Your task to perform on an android device: Go to network settings Image 0: 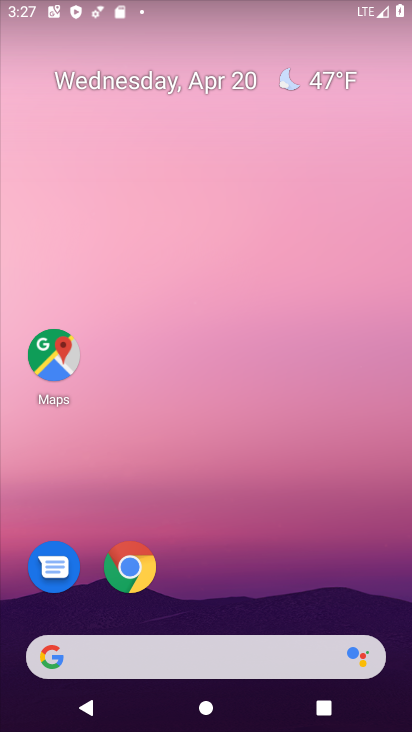
Step 0: drag from (289, 539) to (221, 76)
Your task to perform on an android device: Go to network settings Image 1: 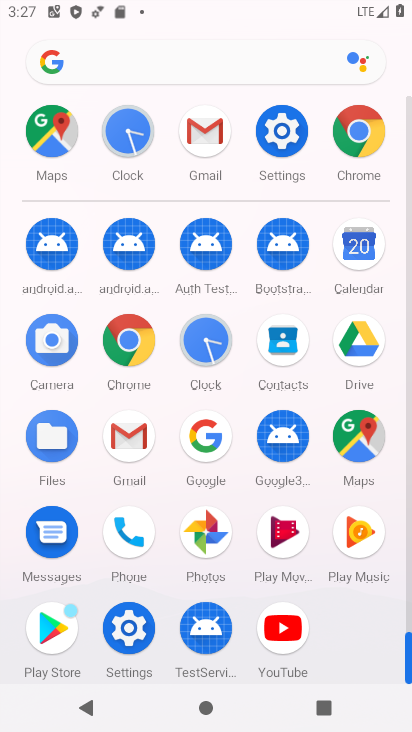
Step 1: click (284, 128)
Your task to perform on an android device: Go to network settings Image 2: 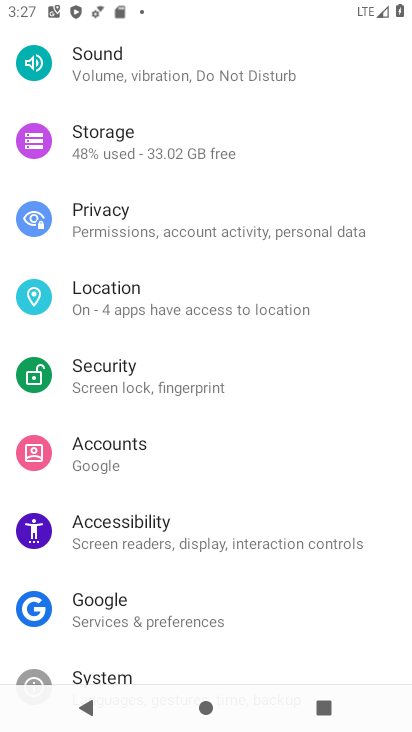
Step 2: drag from (354, 211) to (370, 442)
Your task to perform on an android device: Go to network settings Image 3: 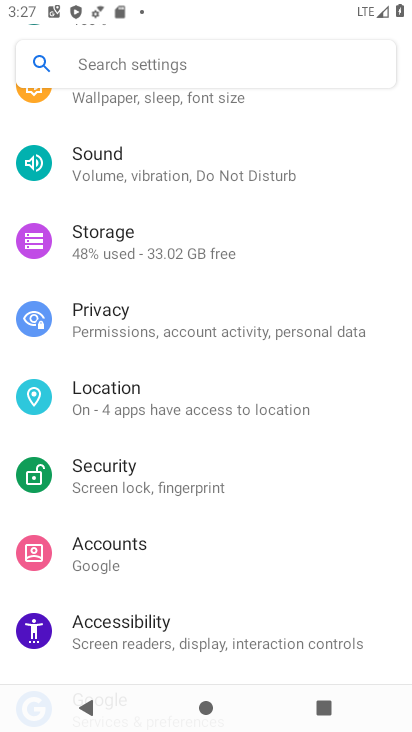
Step 3: drag from (326, 226) to (342, 523)
Your task to perform on an android device: Go to network settings Image 4: 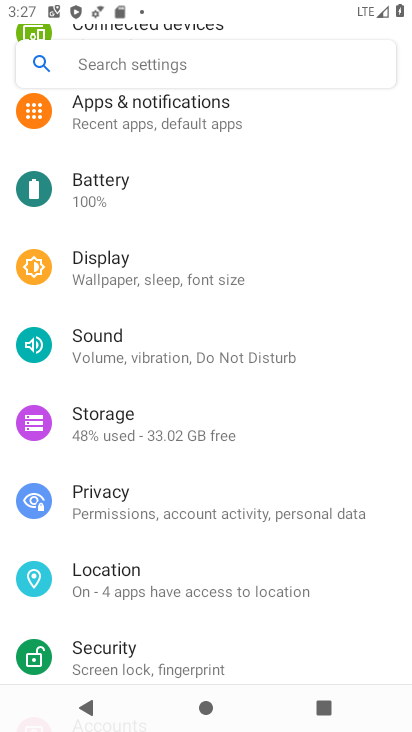
Step 4: drag from (263, 205) to (329, 510)
Your task to perform on an android device: Go to network settings Image 5: 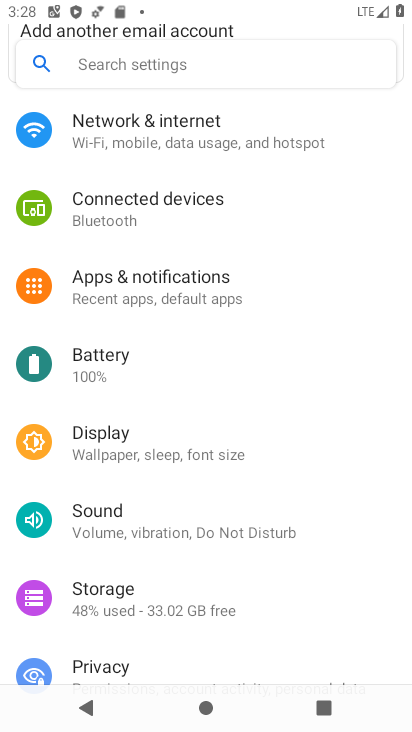
Step 5: drag from (228, 166) to (282, 449)
Your task to perform on an android device: Go to network settings Image 6: 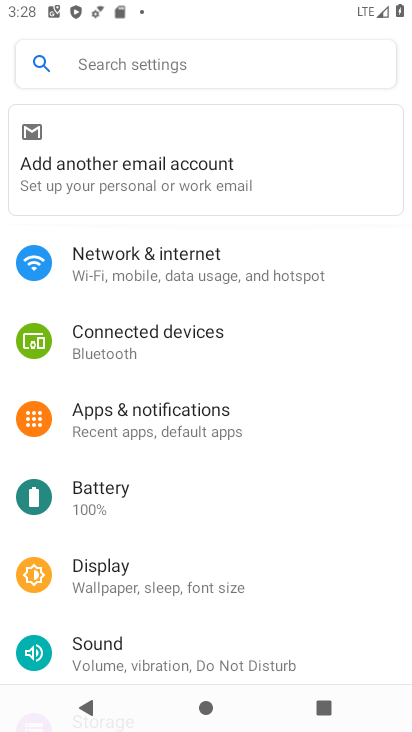
Step 6: click (209, 264)
Your task to perform on an android device: Go to network settings Image 7: 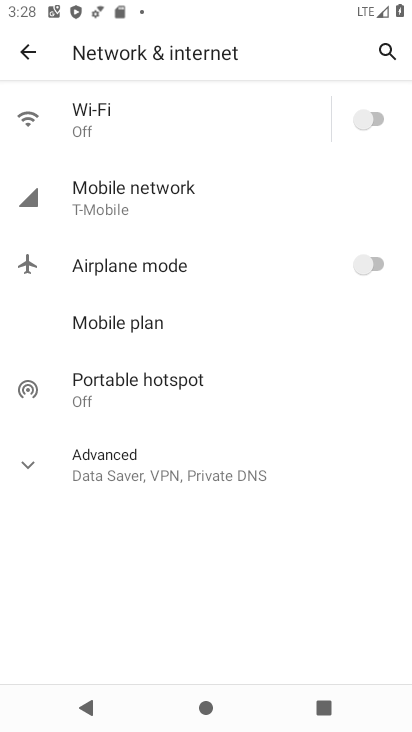
Step 7: click (49, 454)
Your task to perform on an android device: Go to network settings Image 8: 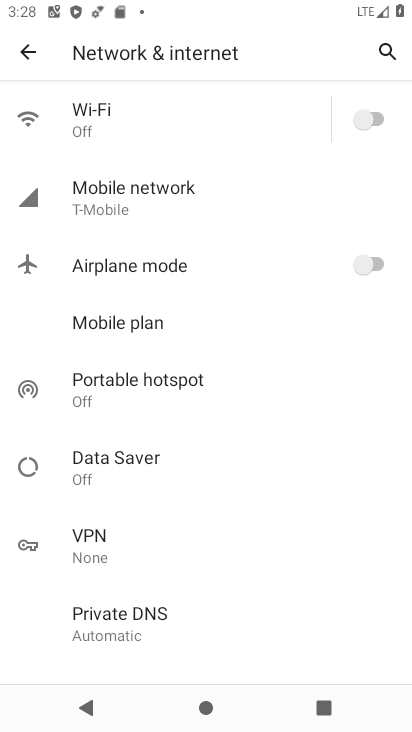
Step 8: task complete